Your task to perform on an android device: Open the calendar and show me this week's events? Image 0: 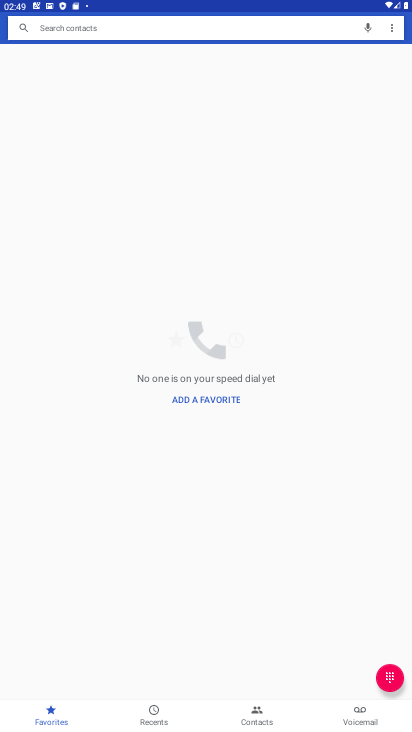
Step 0: press home button
Your task to perform on an android device: Open the calendar and show me this week's events? Image 1: 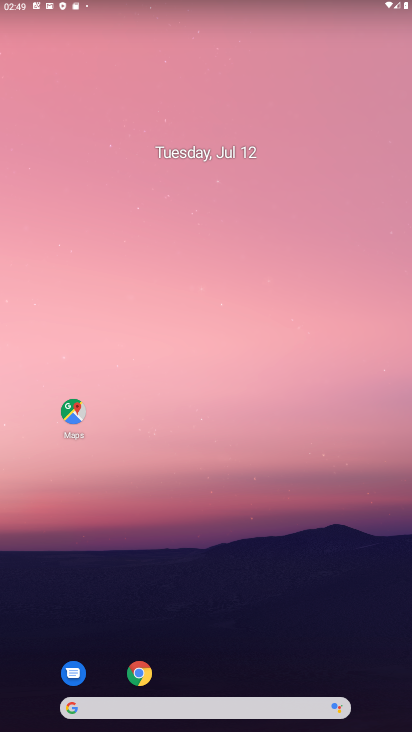
Step 1: press home button
Your task to perform on an android device: Open the calendar and show me this week's events? Image 2: 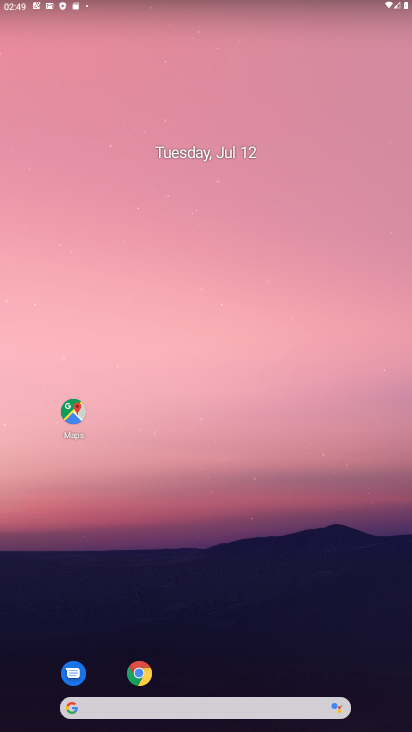
Step 2: drag from (237, 577) to (265, 131)
Your task to perform on an android device: Open the calendar and show me this week's events? Image 3: 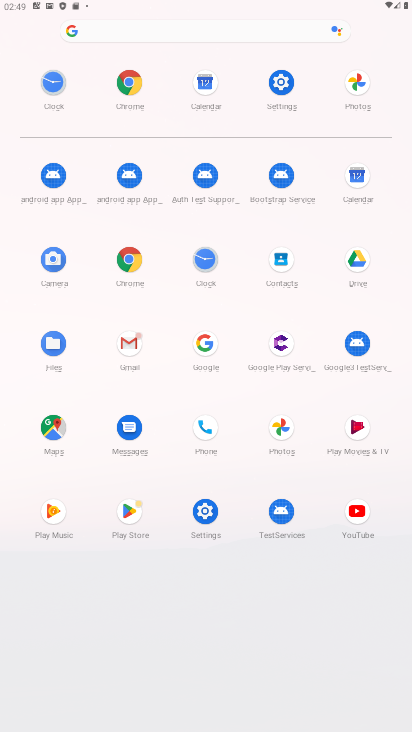
Step 3: click (355, 182)
Your task to perform on an android device: Open the calendar and show me this week's events? Image 4: 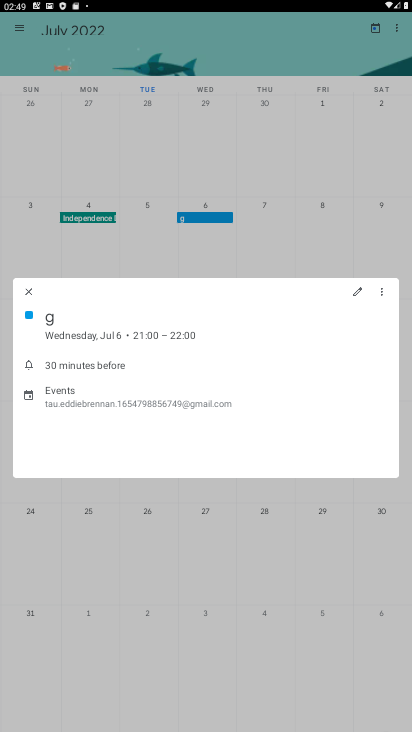
Step 4: click (26, 285)
Your task to perform on an android device: Open the calendar and show me this week's events? Image 5: 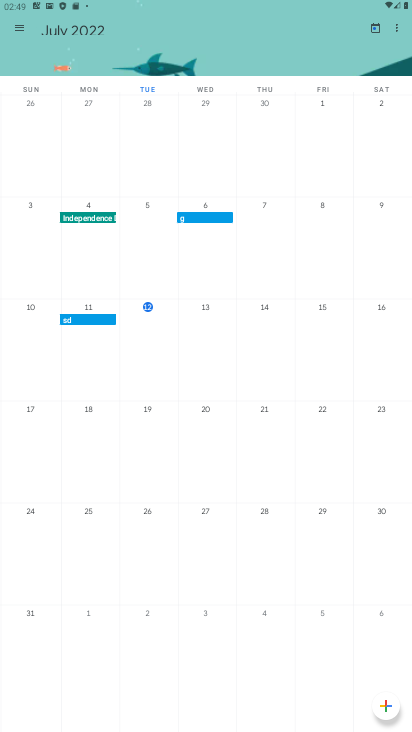
Step 5: click (14, 26)
Your task to perform on an android device: Open the calendar and show me this week's events? Image 6: 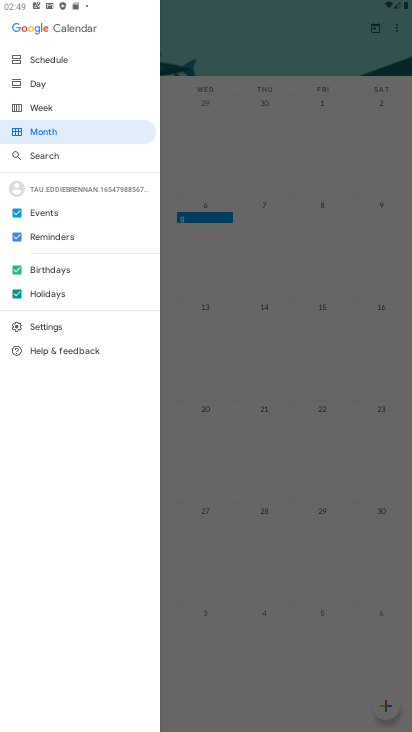
Step 6: click (78, 58)
Your task to perform on an android device: Open the calendar and show me this week's events? Image 7: 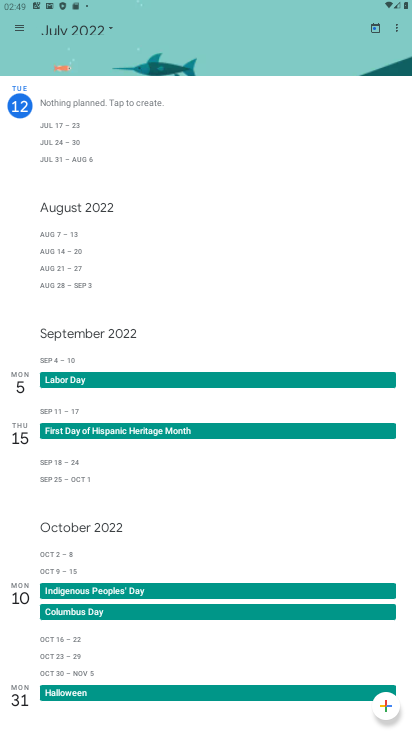
Step 7: task complete